Your task to perform on an android device: turn on priority inbox in the gmail app Image 0: 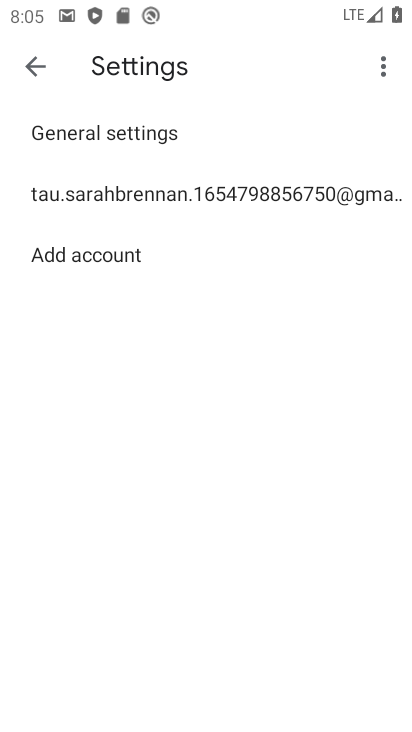
Step 0: press home button
Your task to perform on an android device: turn on priority inbox in the gmail app Image 1: 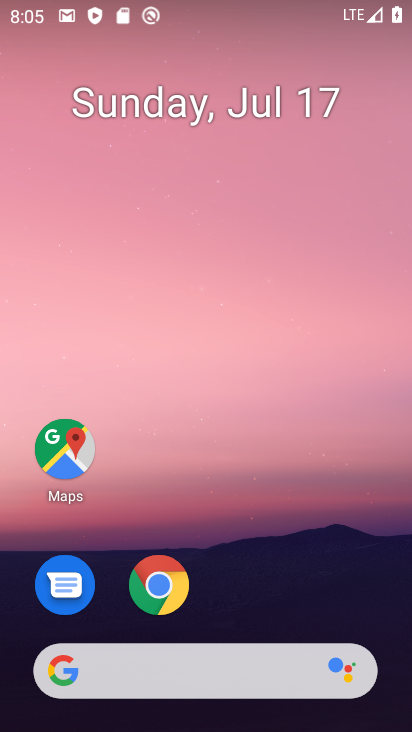
Step 1: drag from (163, 653) to (260, 142)
Your task to perform on an android device: turn on priority inbox in the gmail app Image 2: 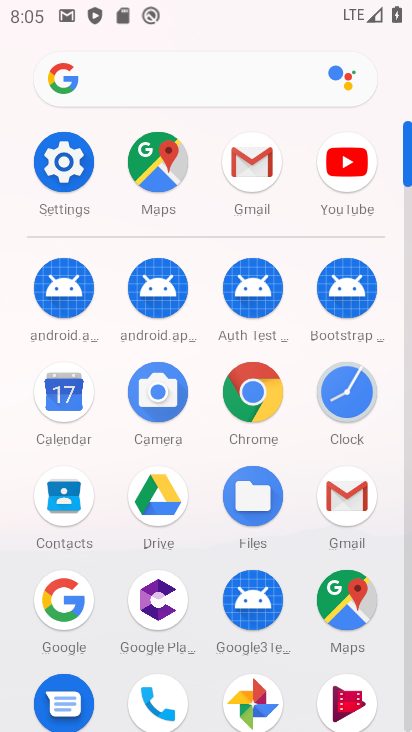
Step 2: click (249, 166)
Your task to perform on an android device: turn on priority inbox in the gmail app Image 3: 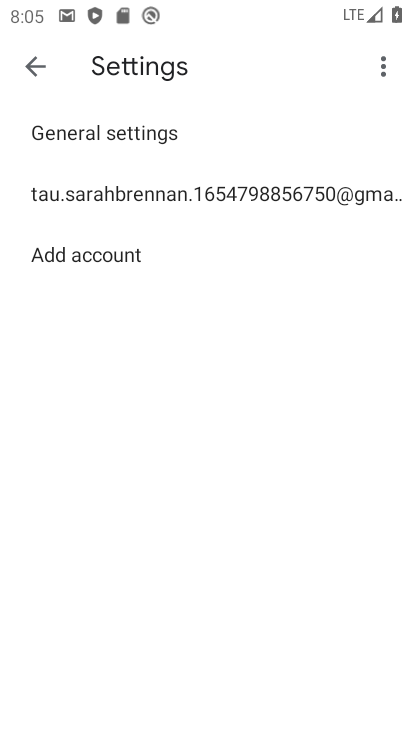
Step 3: click (179, 193)
Your task to perform on an android device: turn on priority inbox in the gmail app Image 4: 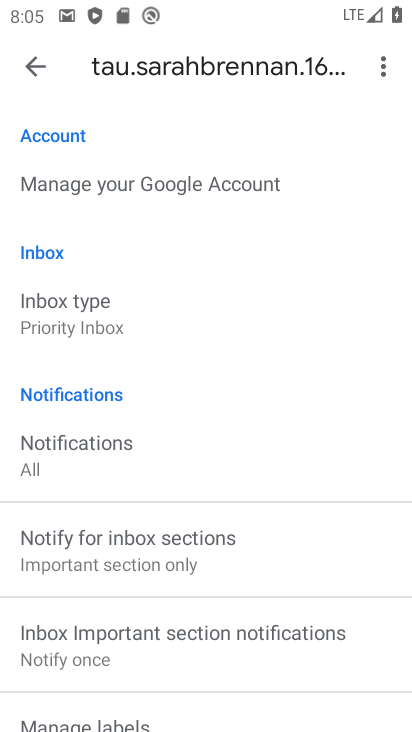
Step 4: click (102, 326)
Your task to perform on an android device: turn on priority inbox in the gmail app Image 5: 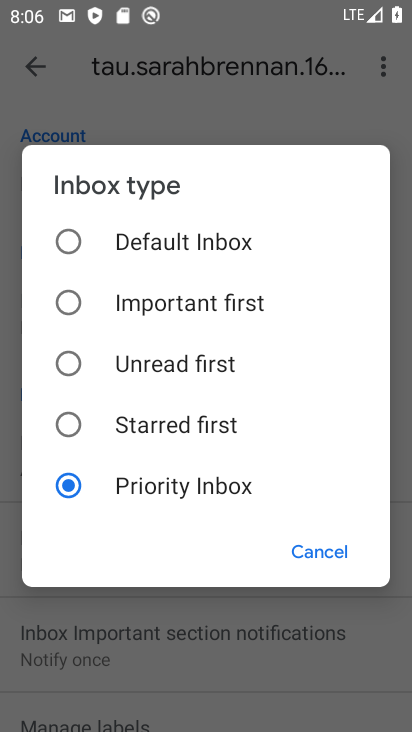
Step 5: task complete